Your task to perform on an android device: turn off location Image 0: 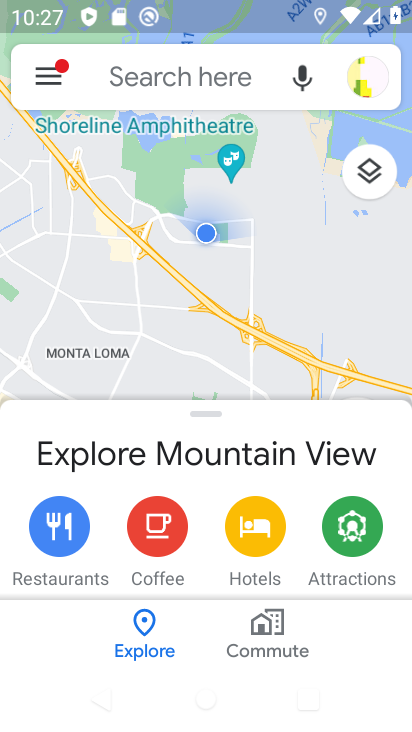
Step 0: press home button
Your task to perform on an android device: turn off location Image 1: 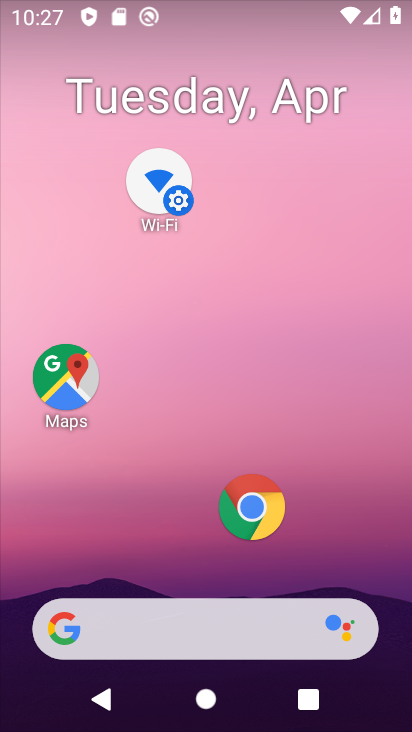
Step 1: drag from (74, 451) to (156, 210)
Your task to perform on an android device: turn off location Image 2: 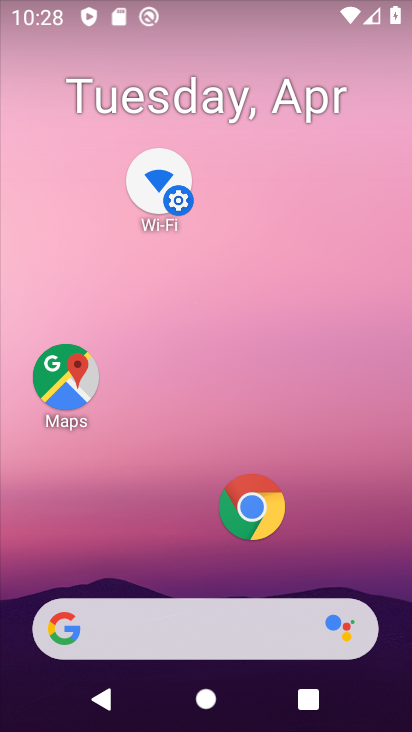
Step 2: drag from (310, 239) to (330, 203)
Your task to perform on an android device: turn off location Image 3: 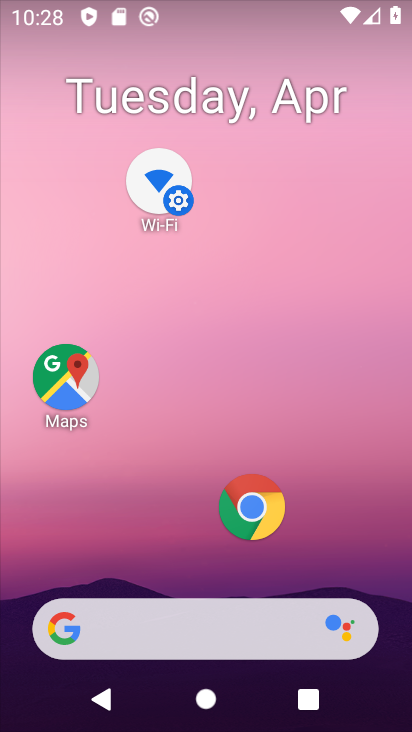
Step 3: drag from (43, 698) to (292, 174)
Your task to perform on an android device: turn off location Image 4: 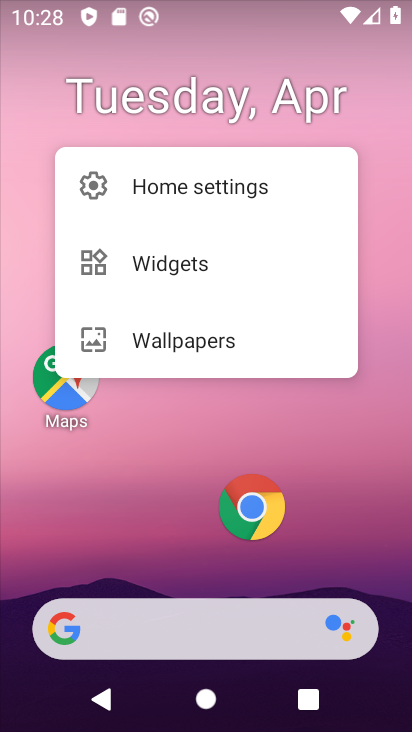
Step 4: drag from (68, 513) to (292, 260)
Your task to perform on an android device: turn off location Image 5: 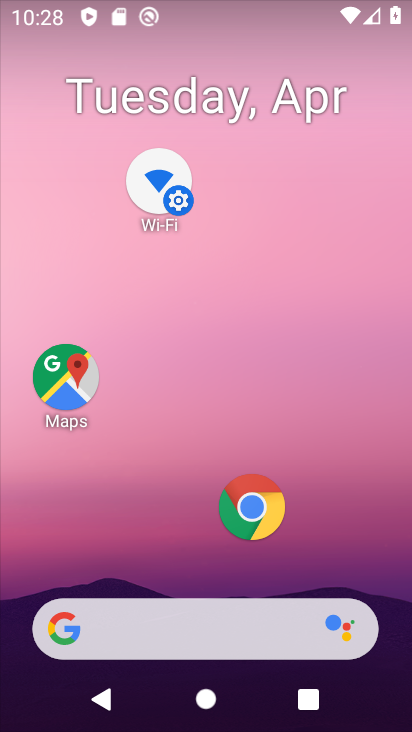
Step 5: drag from (27, 607) to (277, 172)
Your task to perform on an android device: turn off location Image 6: 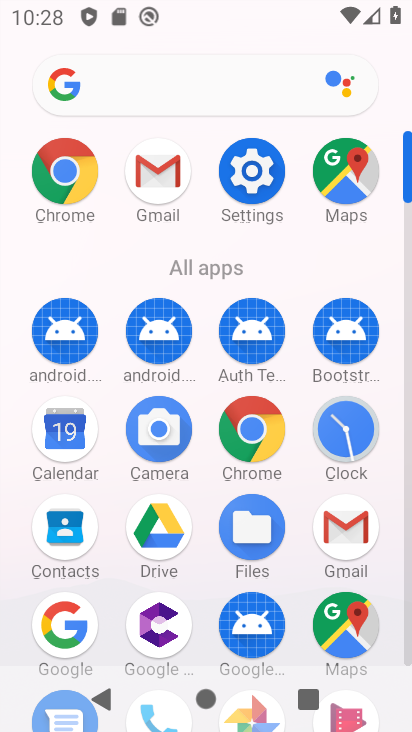
Step 6: click (249, 160)
Your task to perform on an android device: turn off location Image 7: 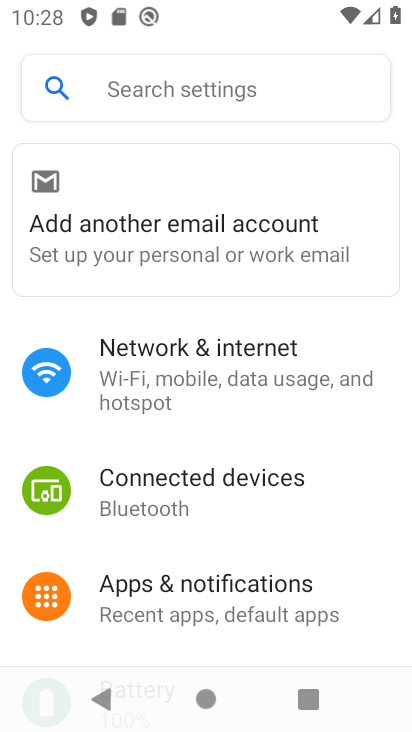
Step 7: drag from (71, 615) to (293, 237)
Your task to perform on an android device: turn off location Image 8: 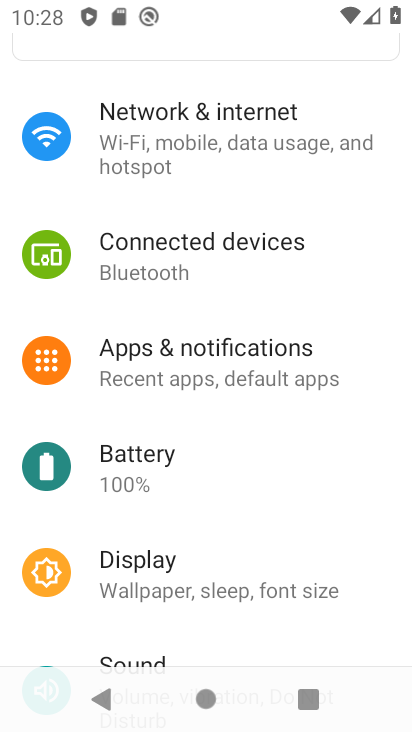
Step 8: drag from (204, 576) to (377, 237)
Your task to perform on an android device: turn off location Image 9: 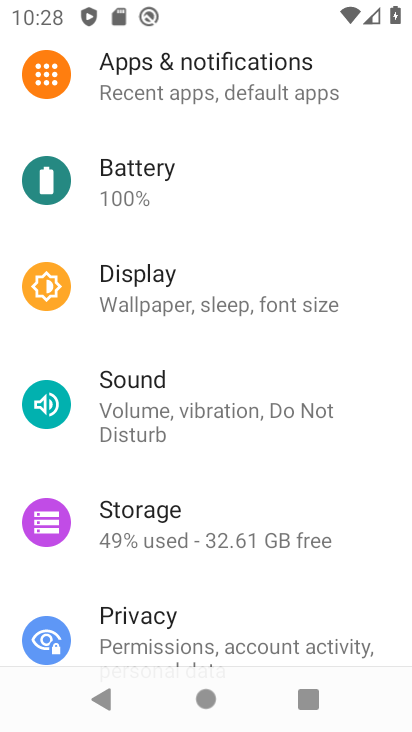
Step 9: drag from (47, 625) to (271, 143)
Your task to perform on an android device: turn off location Image 10: 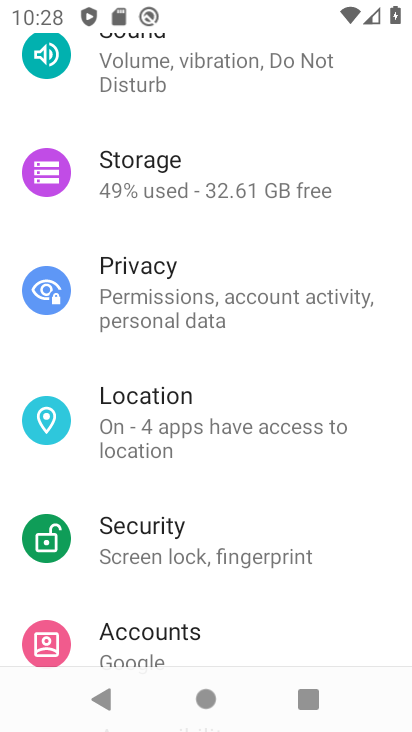
Step 10: drag from (109, 630) to (265, 284)
Your task to perform on an android device: turn off location Image 11: 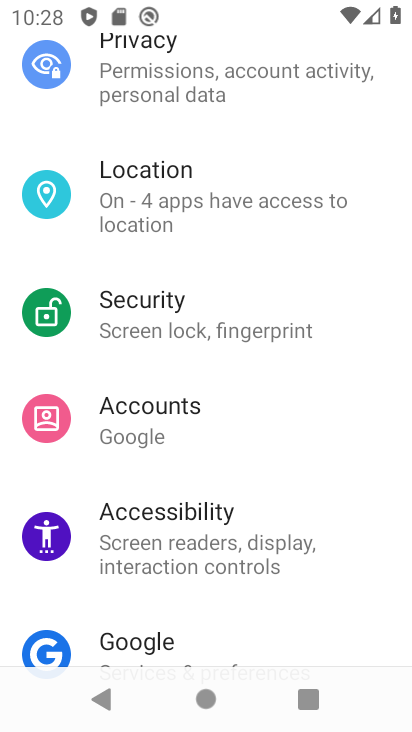
Step 11: drag from (92, 648) to (241, 348)
Your task to perform on an android device: turn off location Image 12: 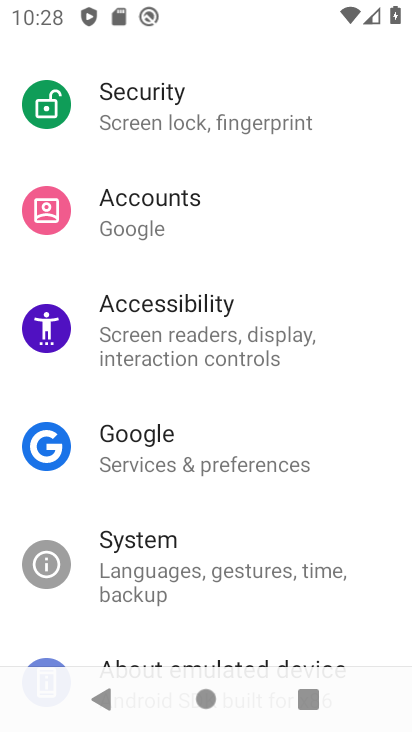
Step 12: drag from (316, 646) to (366, 354)
Your task to perform on an android device: turn off location Image 13: 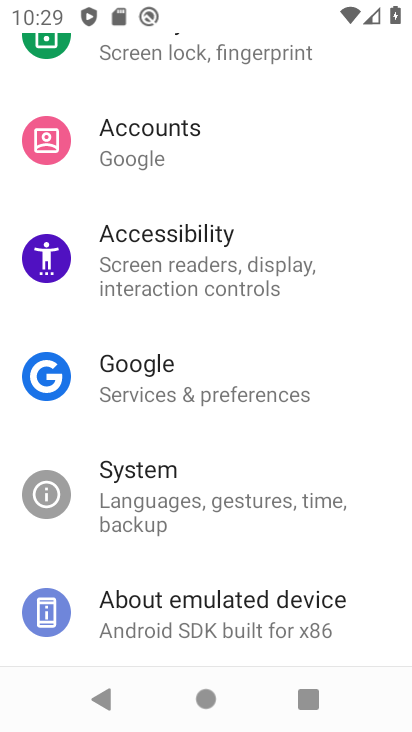
Step 13: drag from (195, 544) to (297, 152)
Your task to perform on an android device: turn off location Image 14: 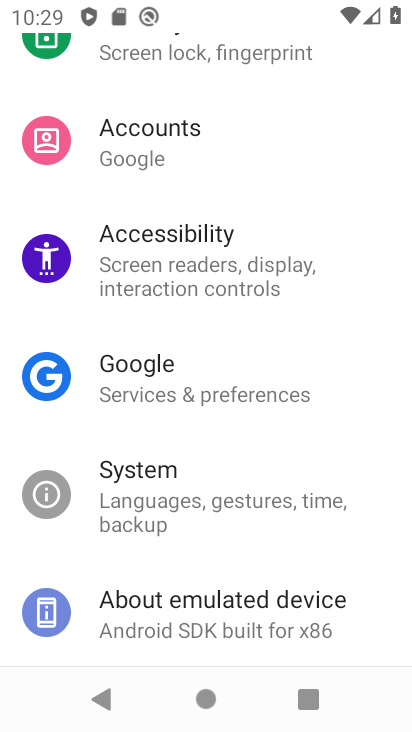
Step 14: drag from (326, 156) to (343, 525)
Your task to perform on an android device: turn off location Image 15: 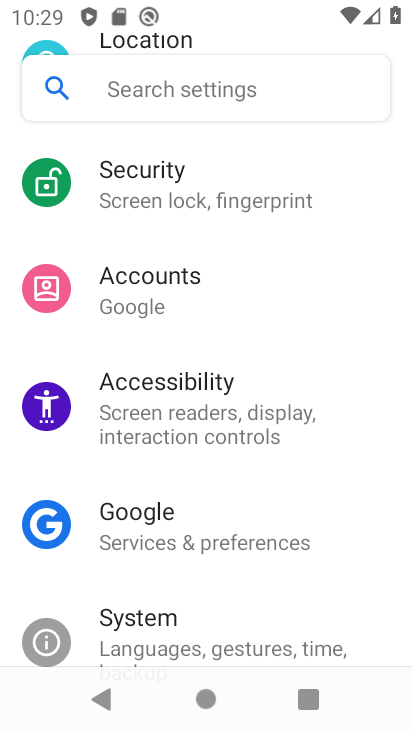
Step 15: drag from (284, 249) to (282, 572)
Your task to perform on an android device: turn off location Image 16: 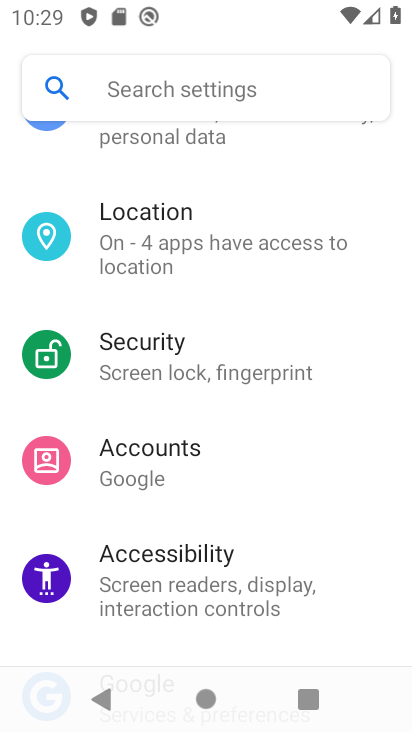
Step 16: click (272, 219)
Your task to perform on an android device: turn off location Image 17: 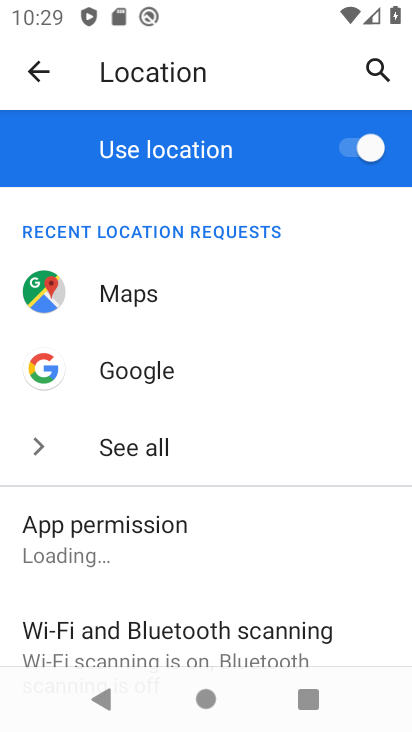
Step 17: click (366, 157)
Your task to perform on an android device: turn off location Image 18: 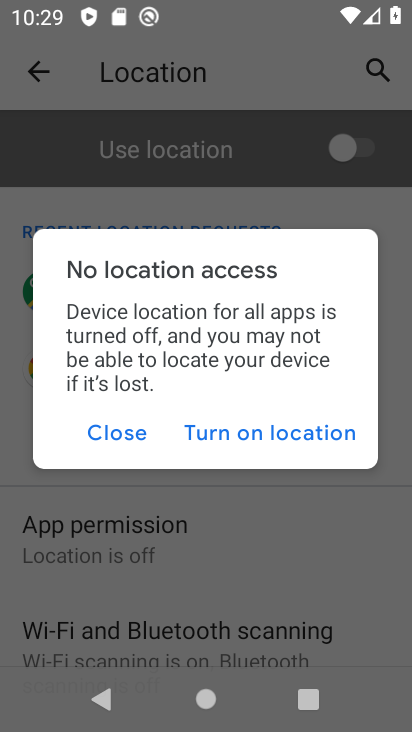
Step 18: click (118, 431)
Your task to perform on an android device: turn off location Image 19: 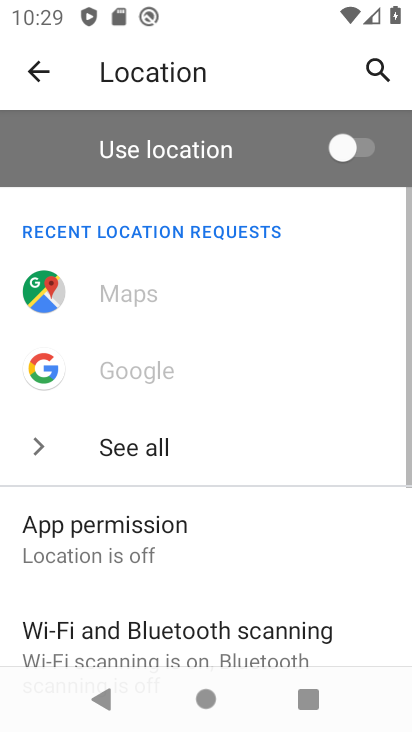
Step 19: task complete